Your task to perform on an android device: turn off smart reply in the gmail app Image 0: 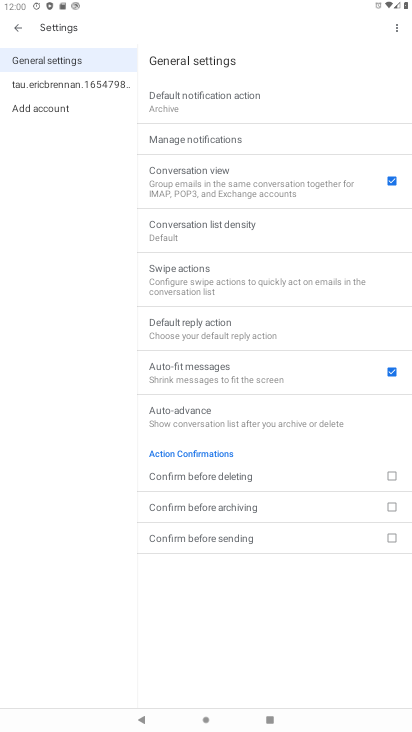
Step 0: click (75, 83)
Your task to perform on an android device: turn off smart reply in the gmail app Image 1: 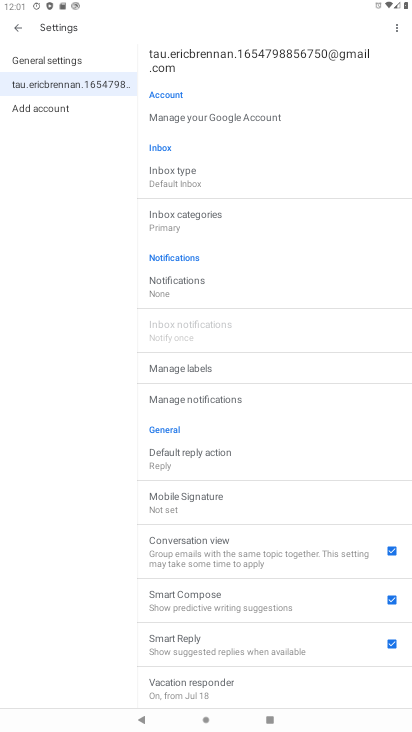
Step 1: click (394, 643)
Your task to perform on an android device: turn off smart reply in the gmail app Image 2: 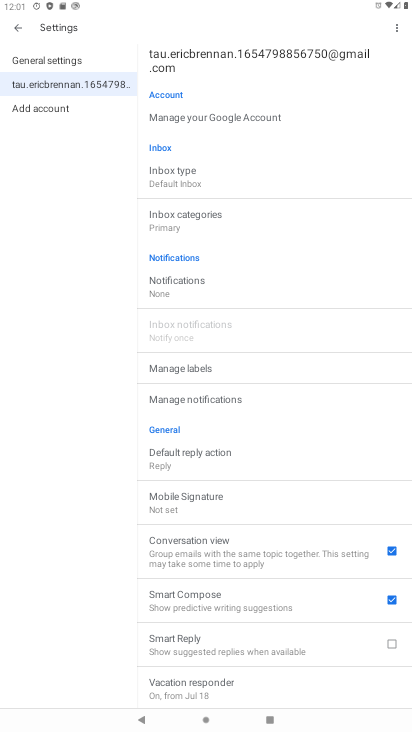
Step 2: task complete